Your task to perform on an android device: Go to privacy settings Image 0: 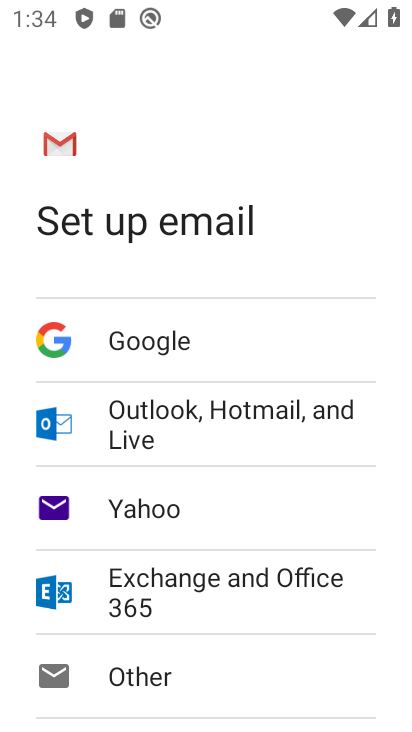
Step 0: press home button
Your task to perform on an android device: Go to privacy settings Image 1: 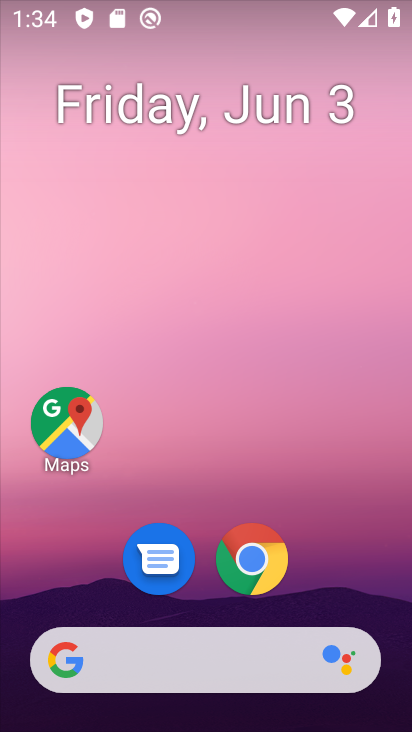
Step 1: drag from (353, 606) to (343, 199)
Your task to perform on an android device: Go to privacy settings Image 2: 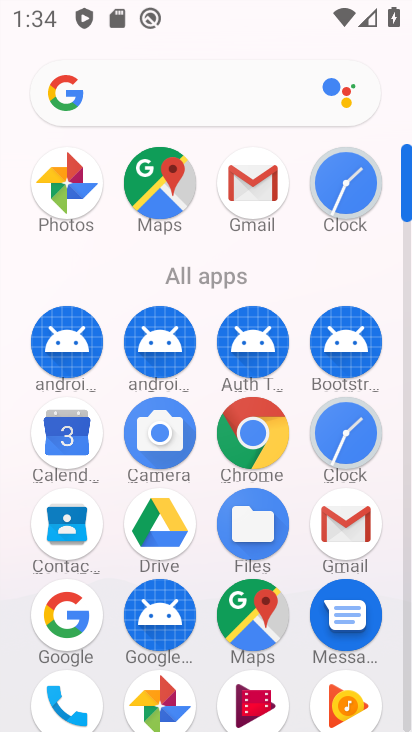
Step 2: drag from (293, 305) to (288, 130)
Your task to perform on an android device: Go to privacy settings Image 3: 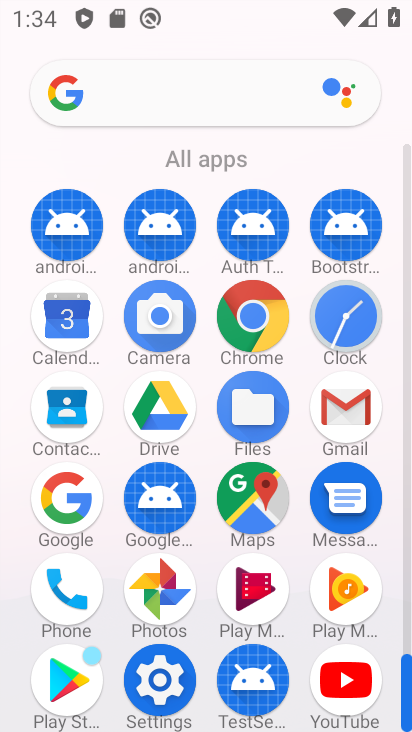
Step 3: click (172, 687)
Your task to perform on an android device: Go to privacy settings Image 4: 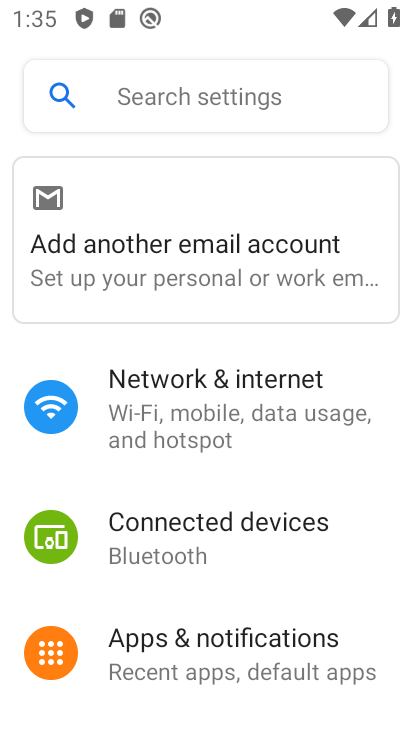
Step 4: drag from (198, 695) to (196, 551)
Your task to perform on an android device: Go to privacy settings Image 5: 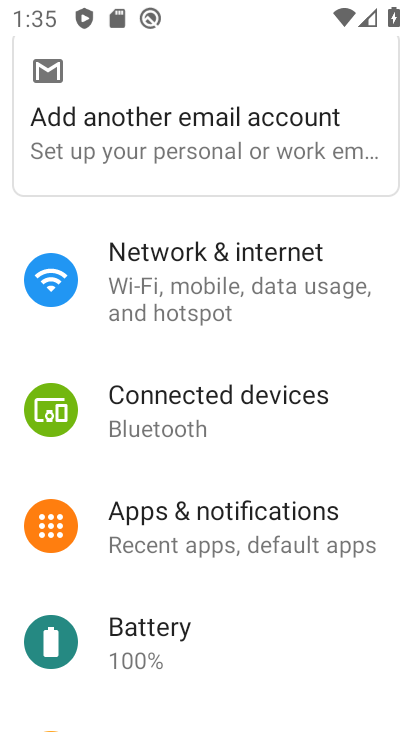
Step 5: drag from (189, 687) to (206, 471)
Your task to perform on an android device: Go to privacy settings Image 6: 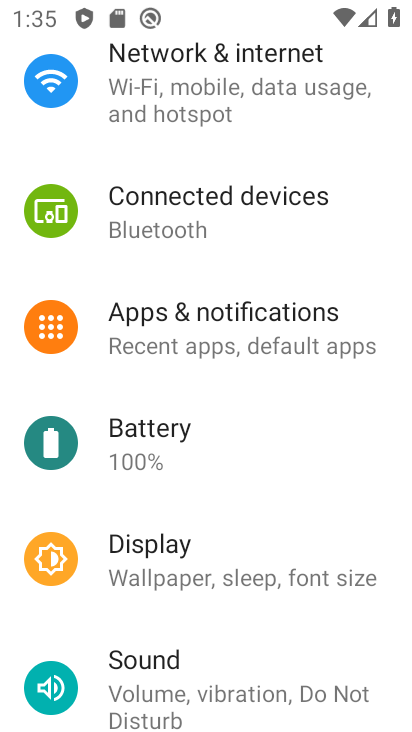
Step 6: drag from (198, 707) to (214, 439)
Your task to perform on an android device: Go to privacy settings Image 7: 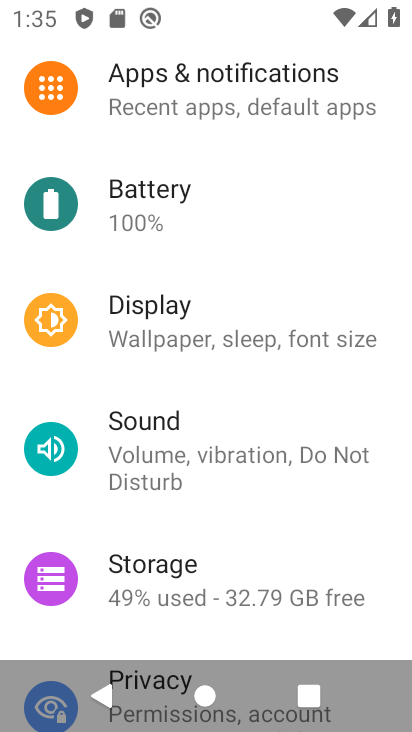
Step 7: drag from (218, 609) to (229, 469)
Your task to perform on an android device: Go to privacy settings Image 8: 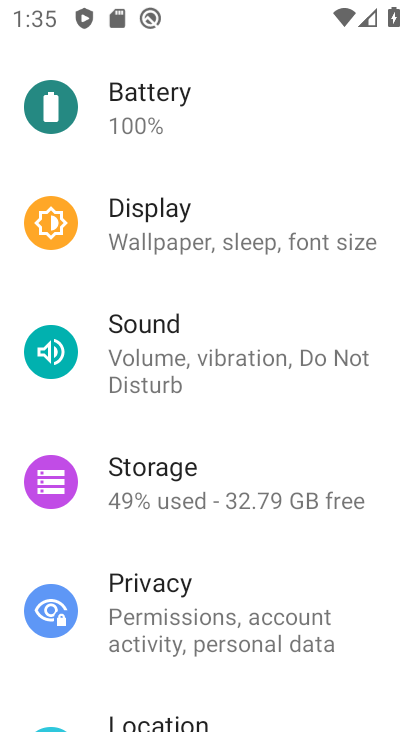
Step 8: click (158, 620)
Your task to perform on an android device: Go to privacy settings Image 9: 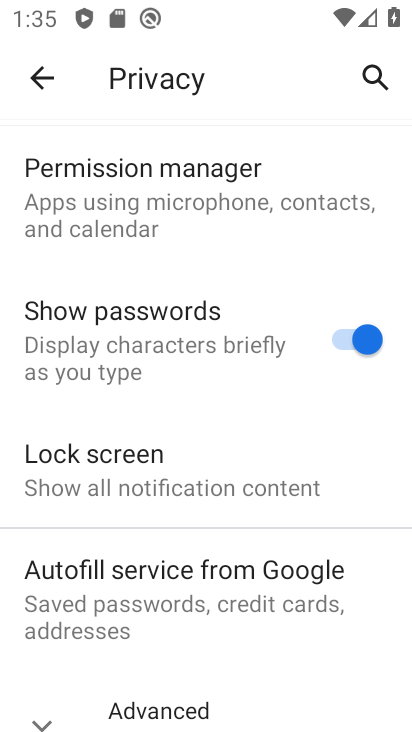
Step 9: task complete